Your task to perform on an android device: Open Youtube and go to "Your channel" Image 0: 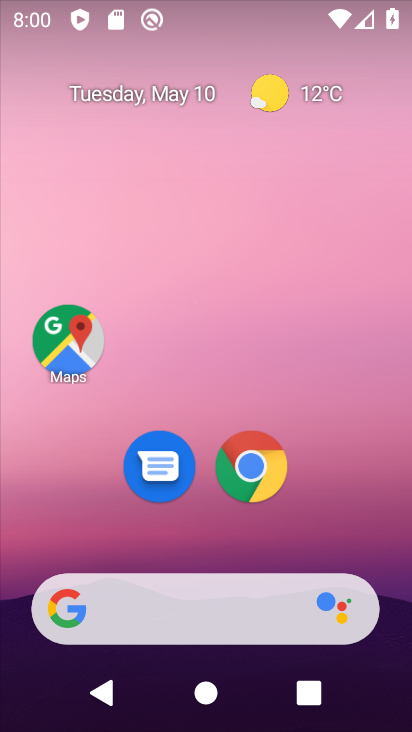
Step 0: drag from (211, 508) to (274, 129)
Your task to perform on an android device: Open Youtube and go to "Your channel" Image 1: 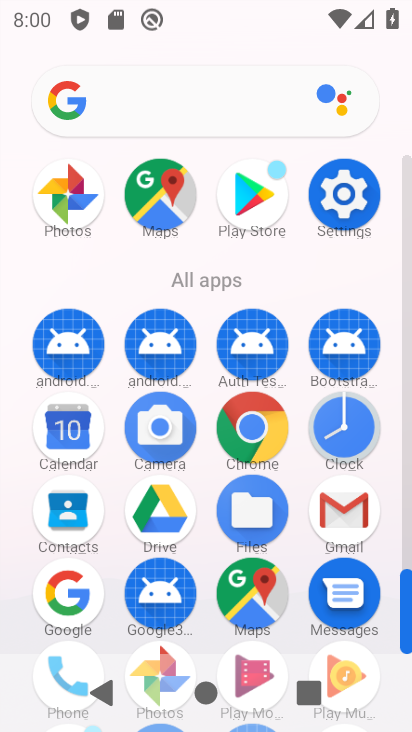
Step 1: drag from (206, 475) to (252, 174)
Your task to perform on an android device: Open Youtube and go to "Your channel" Image 2: 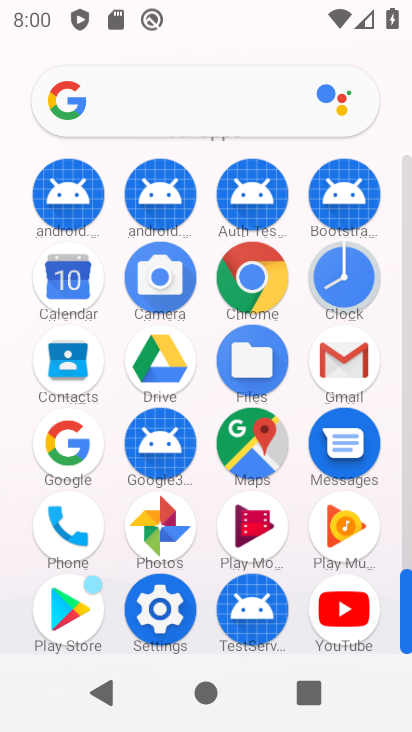
Step 2: click (359, 620)
Your task to perform on an android device: Open Youtube and go to "Your channel" Image 3: 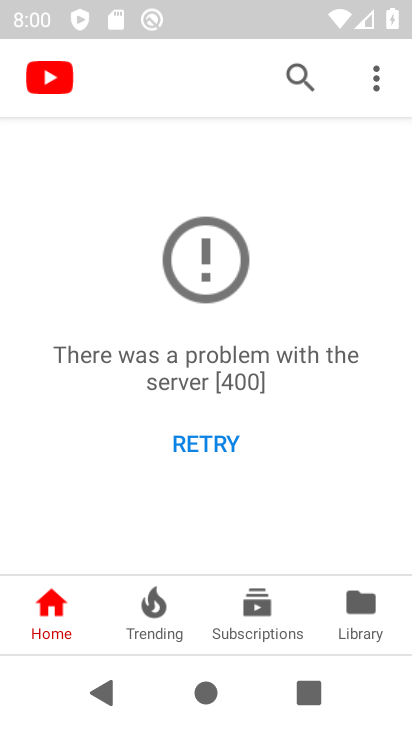
Step 3: click (220, 445)
Your task to perform on an android device: Open Youtube and go to "Your channel" Image 4: 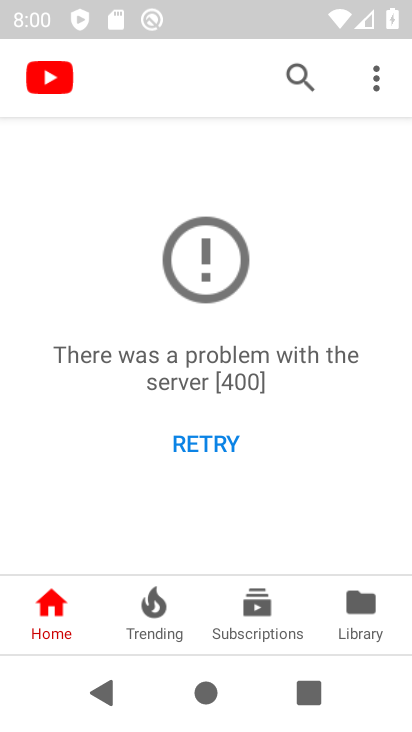
Step 4: click (371, 88)
Your task to perform on an android device: Open Youtube and go to "Your channel" Image 5: 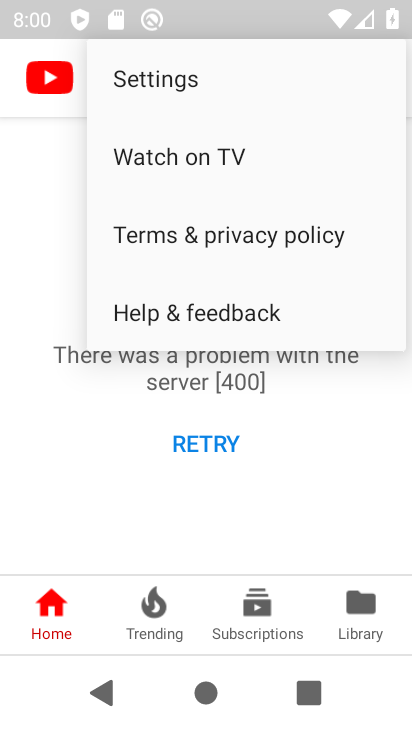
Step 5: click (283, 423)
Your task to perform on an android device: Open Youtube and go to "Your channel" Image 6: 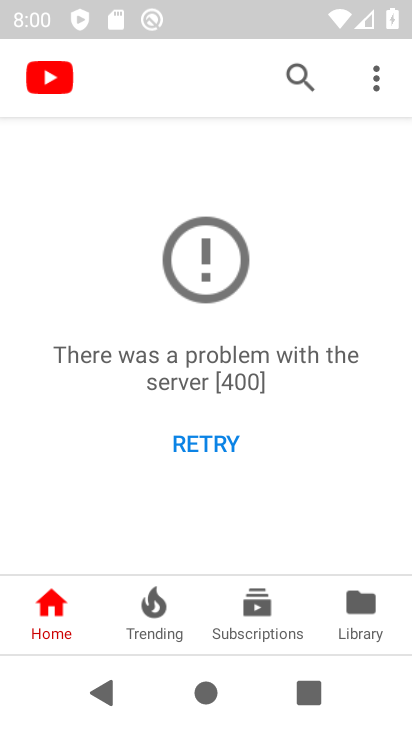
Step 6: task complete